Your task to perform on an android device: When is my next appointment? Image 0: 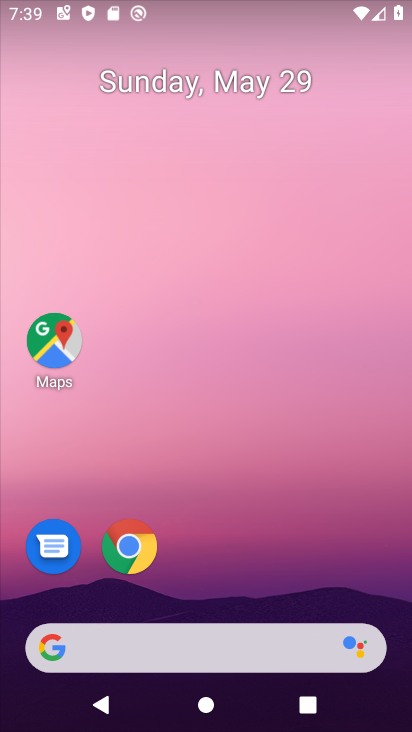
Step 0: drag from (205, 398) to (252, 124)
Your task to perform on an android device: When is my next appointment? Image 1: 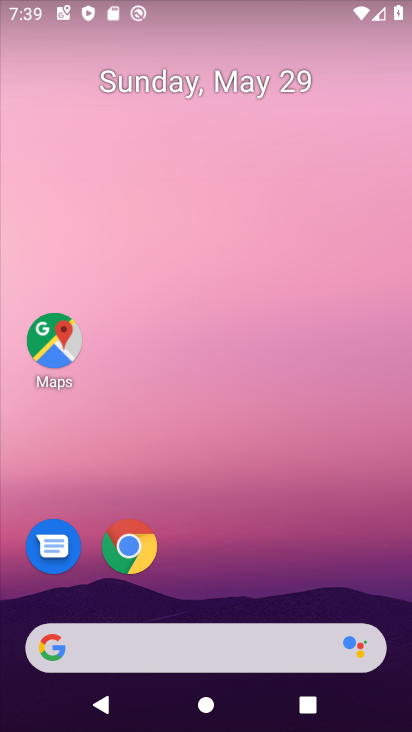
Step 1: drag from (252, 613) to (339, 44)
Your task to perform on an android device: When is my next appointment? Image 2: 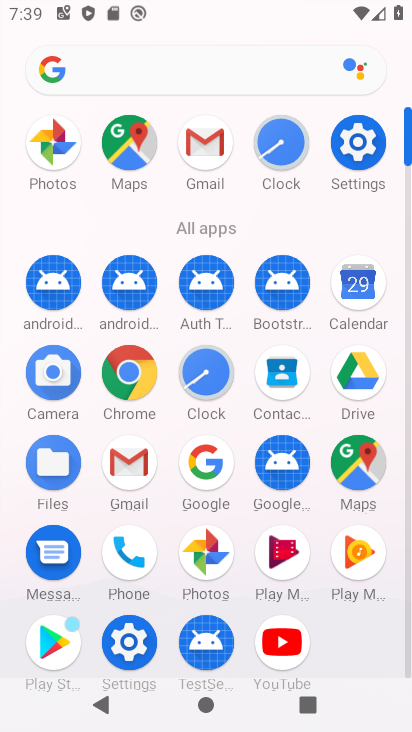
Step 2: click (355, 298)
Your task to perform on an android device: When is my next appointment? Image 3: 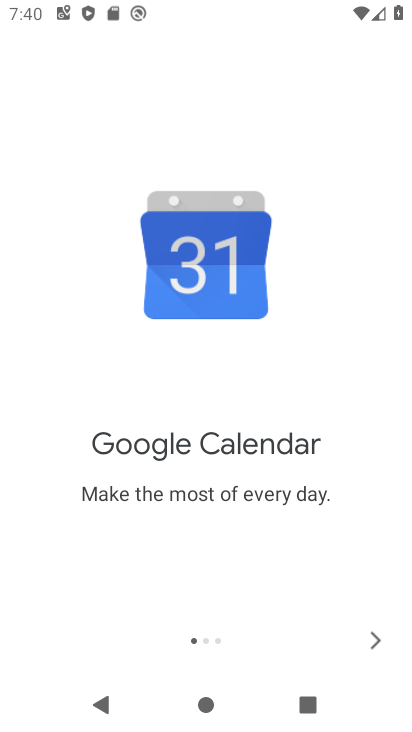
Step 3: click (374, 636)
Your task to perform on an android device: When is my next appointment? Image 4: 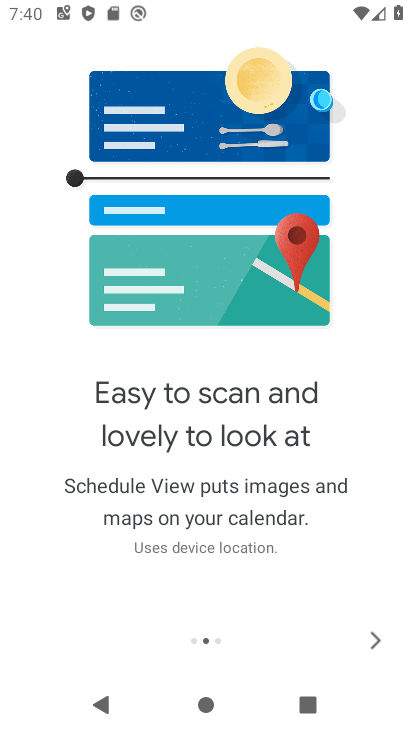
Step 4: click (375, 636)
Your task to perform on an android device: When is my next appointment? Image 5: 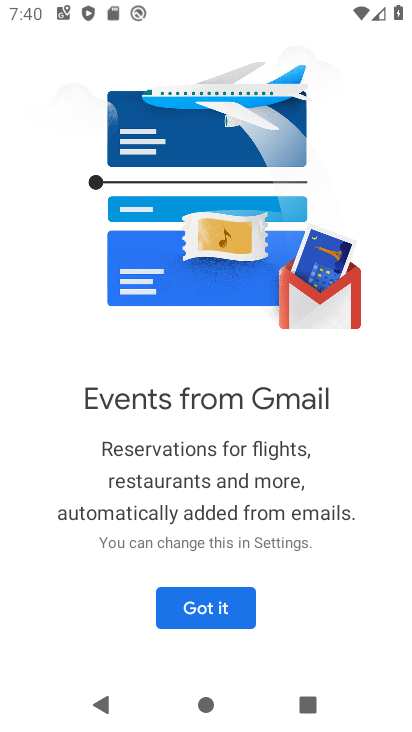
Step 5: click (171, 617)
Your task to perform on an android device: When is my next appointment? Image 6: 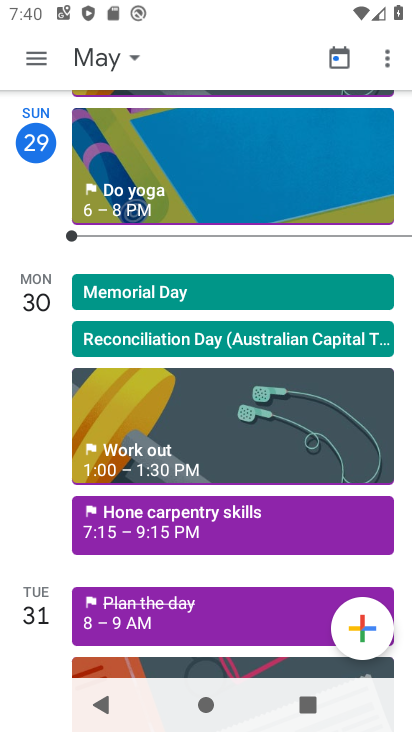
Step 6: task complete